Your task to perform on an android device: turn on the 24-hour format for clock Image 0: 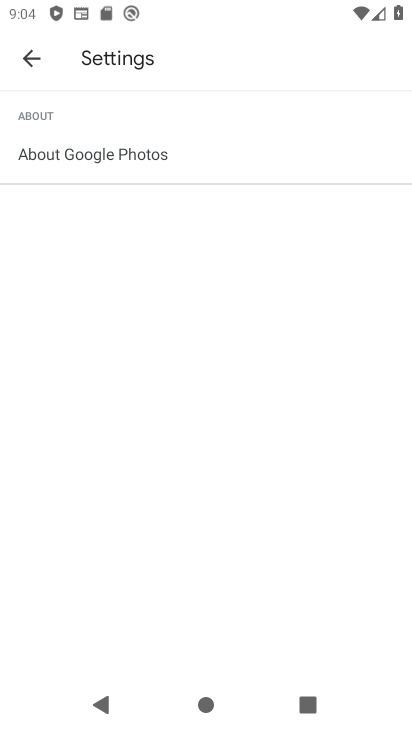
Step 0: press home button
Your task to perform on an android device: turn on the 24-hour format for clock Image 1: 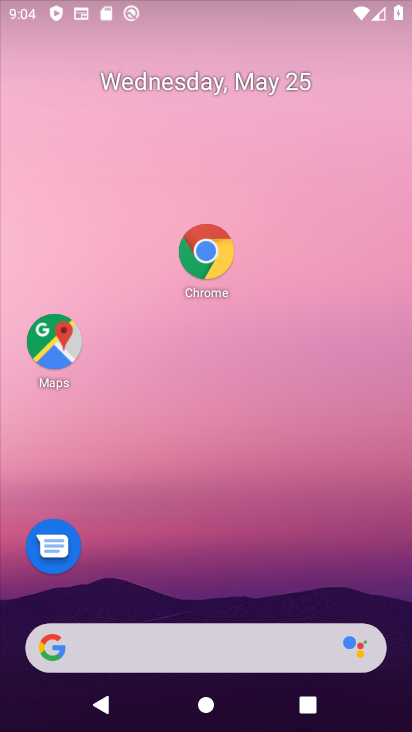
Step 1: drag from (312, 324) to (312, 198)
Your task to perform on an android device: turn on the 24-hour format for clock Image 2: 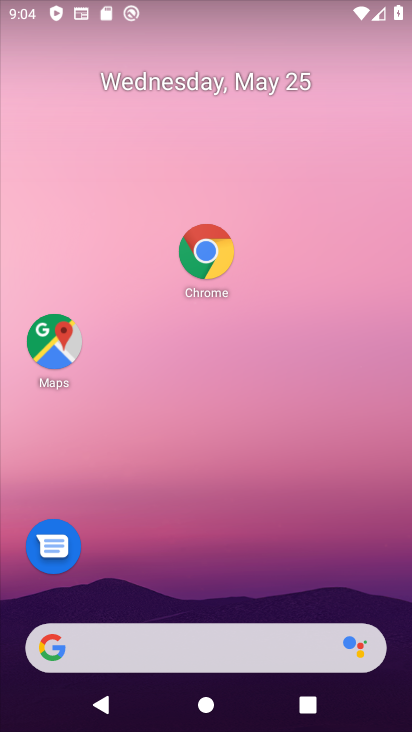
Step 2: drag from (279, 544) to (293, 197)
Your task to perform on an android device: turn on the 24-hour format for clock Image 3: 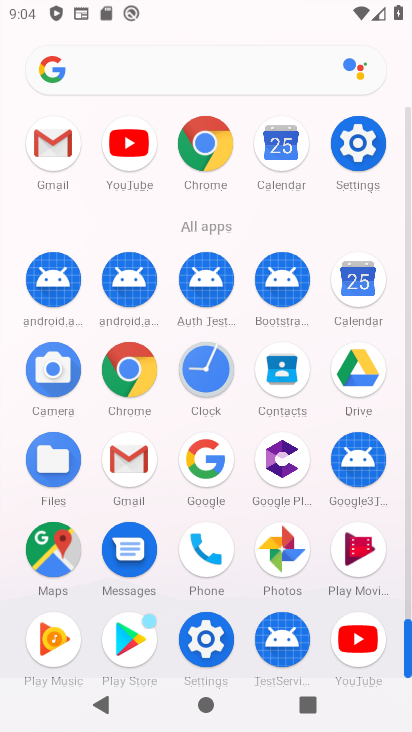
Step 3: click (199, 369)
Your task to perform on an android device: turn on the 24-hour format for clock Image 4: 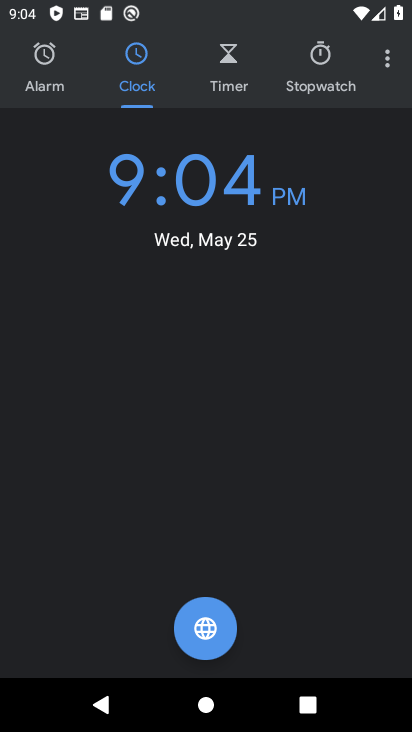
Step 4: click (383, 72)
Your task to perform on an android device: turn on the 24-hour format for clock Image 5: 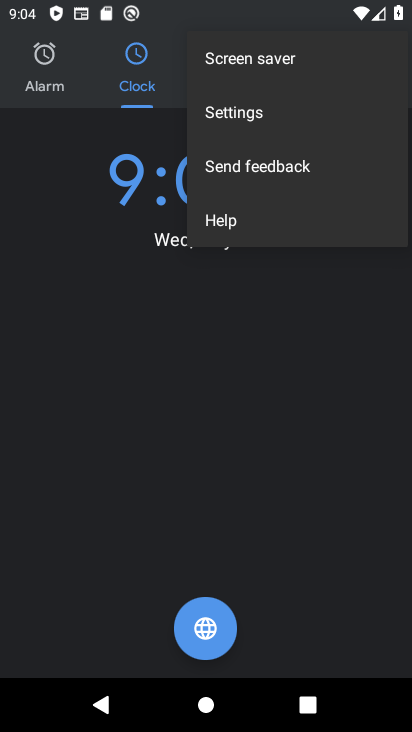
Step 5: click (254, 111)
Your task to perform on an android device: turn on the 24-hour format for clock Image 6: 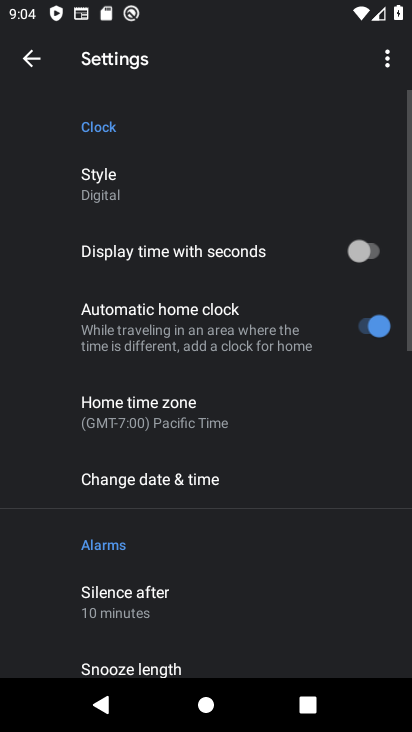
Step 6: click (144, 474)
Your task to perform on an android device: turn on the 24-hour format for clock Image 7: 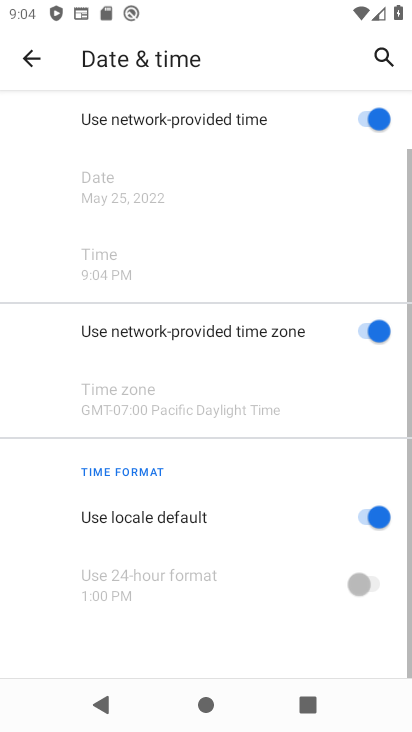
Step 7: drag from (260, 505) to (263, 196)
Your task to perform on an android device: turn on the 24-hour format for clock Image 8: 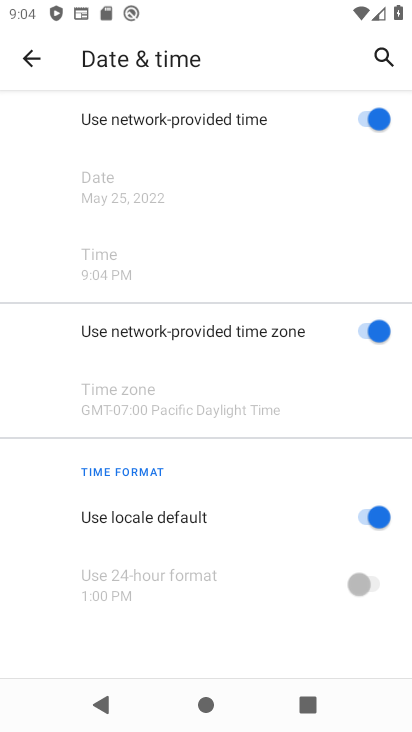
Step 8: click (357, 496)
Your task to perform on an android device: turn on the 24-hour format for clock Image 9: 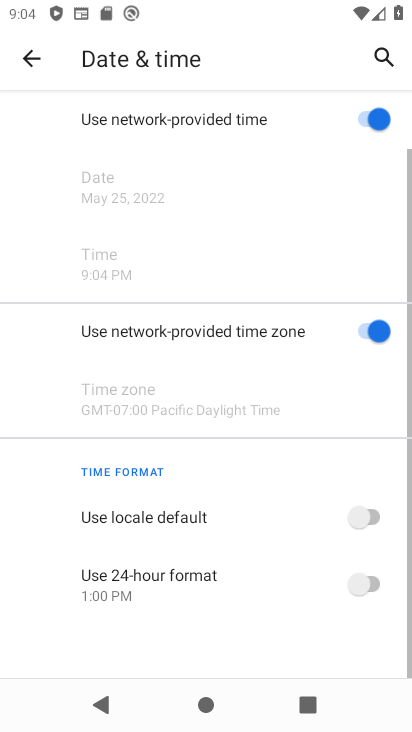
Step 9: click (364, 608)
Your task to perform on an android device: turn on the 24-hour format for clock Image 10: 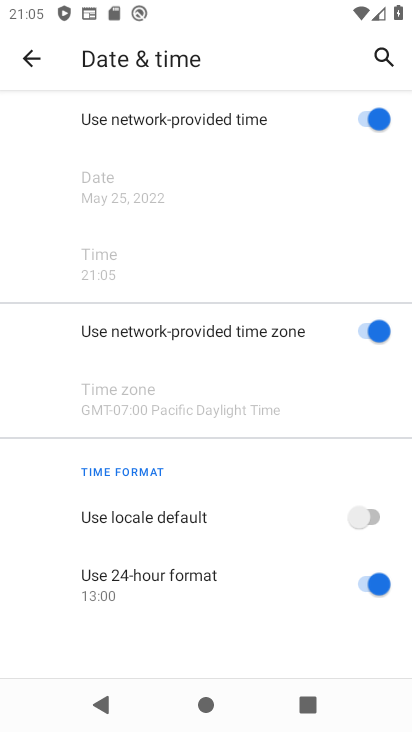
Step 10: task complete